Your task to perform on an android device: Open Maps and search for coffee Image 0: 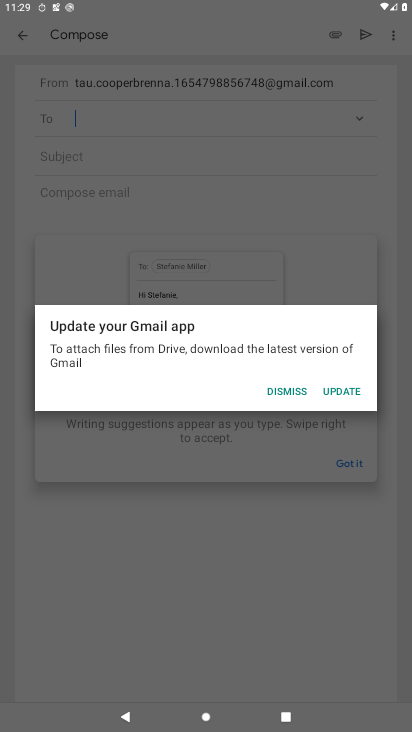
Step 0: press home button
Your task to perform on an android device: Open Maps and search for coffee Image 1: 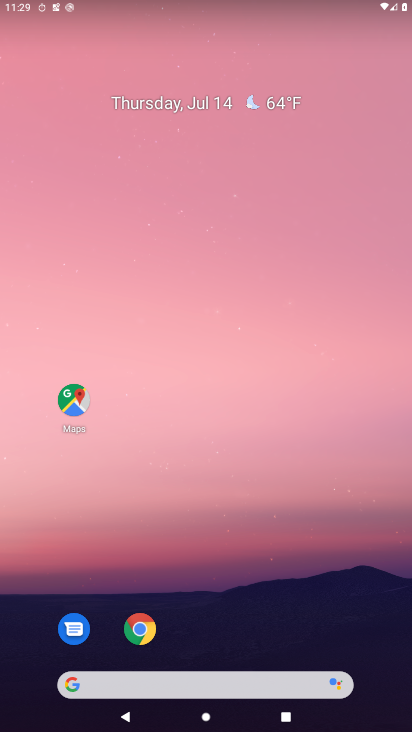
Step 1: click (80, 395)
Your task to perform on an android device: Open Maps and search for coffee Image 2: 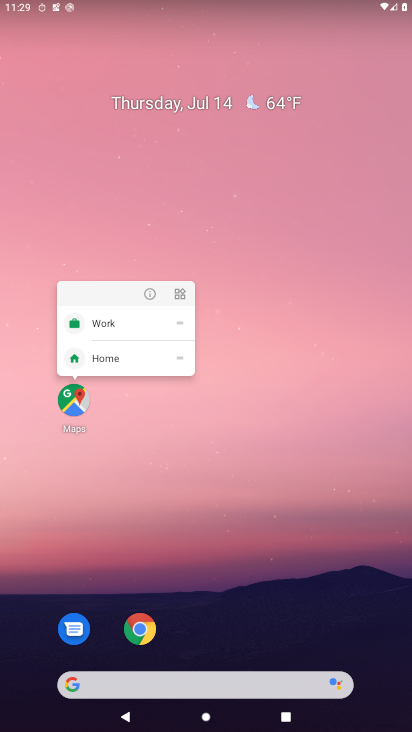
Step 2: click (80, 395)
Your task to perform on an android device: Open Maps and search for coffee Image 3: 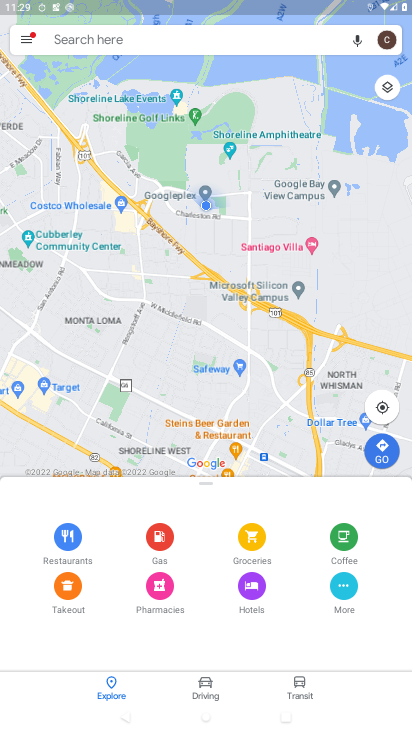
Step 3: click (165, 36)
Your task to perform on an android device: Open Maps and search for coffee Image 4: 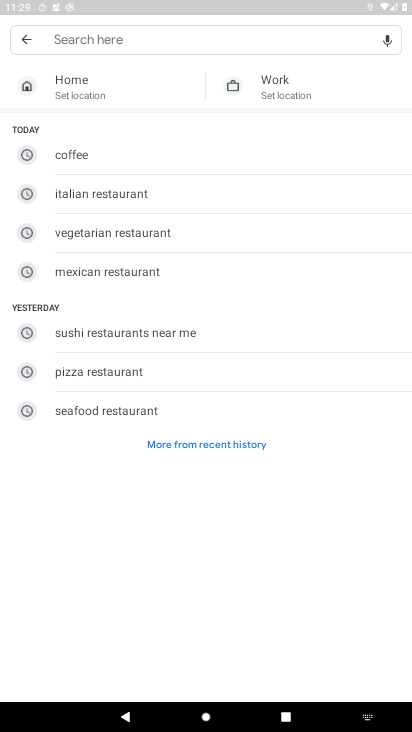
Step 4: click (78, 153)
Your task to perform on an android device: Open Maps and search for coffee Image 5: 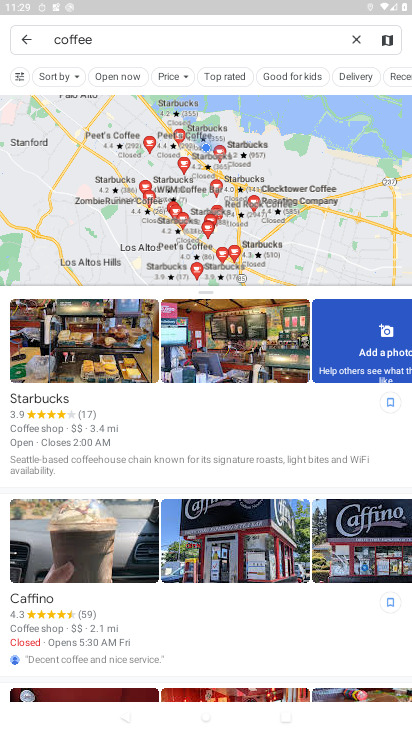
Step 5: task complete